Your task to perform on an android device: change the clock display to analog Image 0: 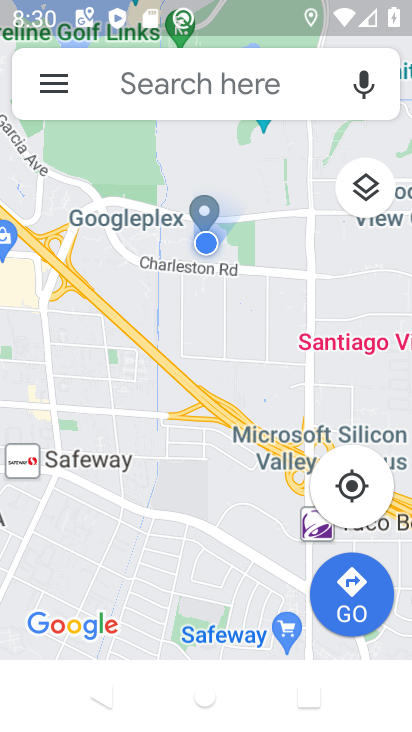
Step 0: press back button
Your task to perform on an android device: change the clock display to analog Image 1: 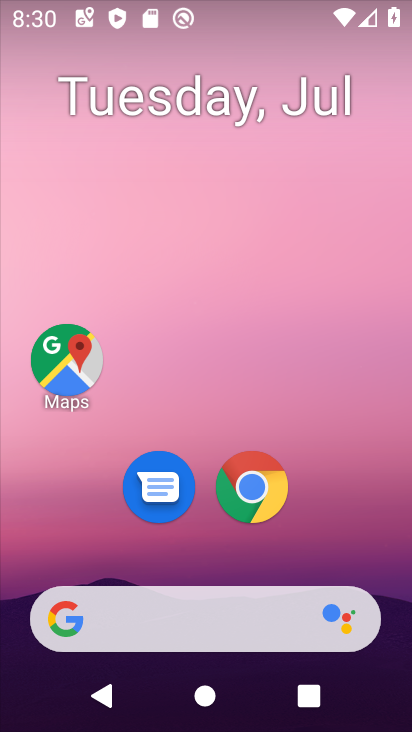
Step 1: drag from (150, 566) to (278, 6)
Your task to perform on an android device: change the clock display to analog Image 2: 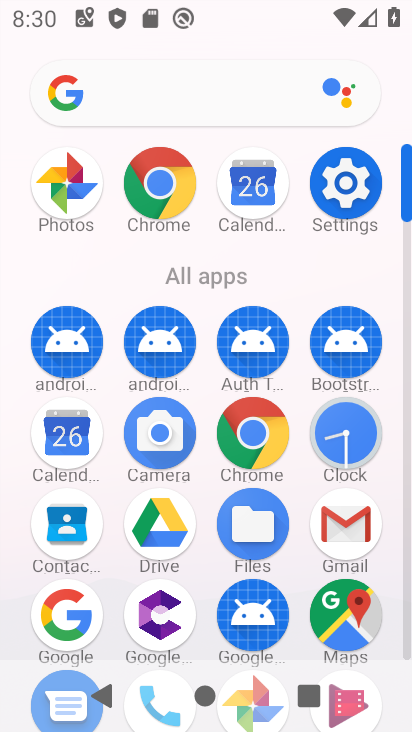
Step 2: click (329, 431)
Your task to perform on an android device: change the clock display to analog Image 3: 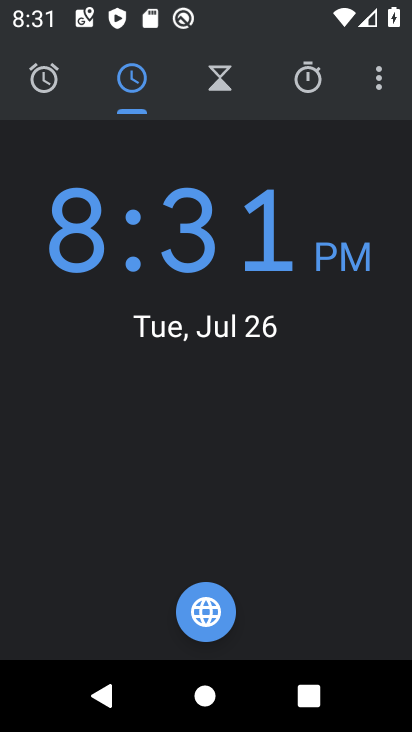
Step 3: click (377, 76)
Your task to perform on an android device: change the clock display to analog Image 4: 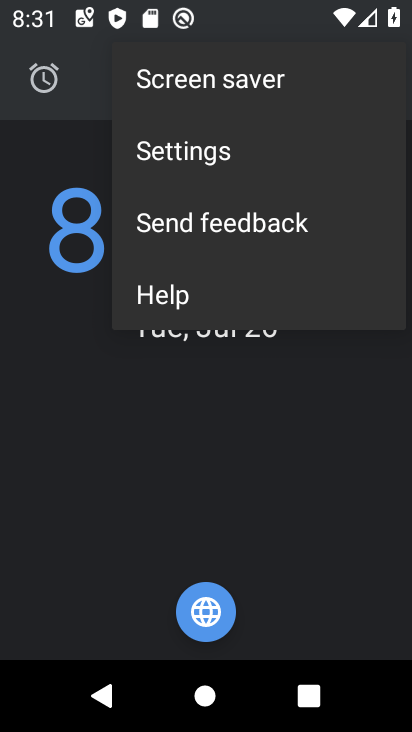
Step 4: click (195, 131)
Your task to perform on an android device: change the clock display to analog Image 5: 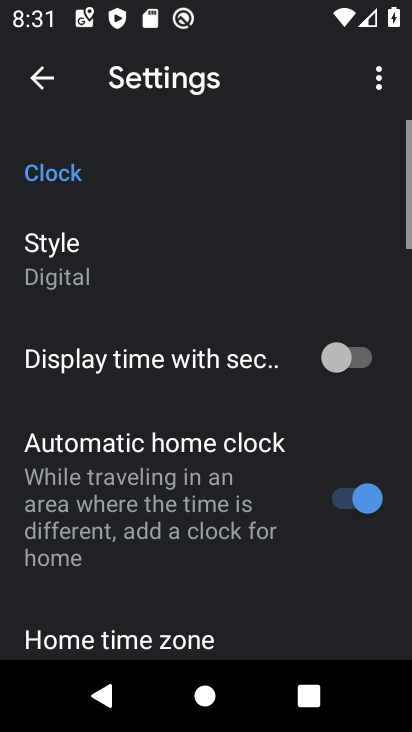
Step 5: click (87, 242)
Your task to perform on an android device: change the clock display to analog Image 6: 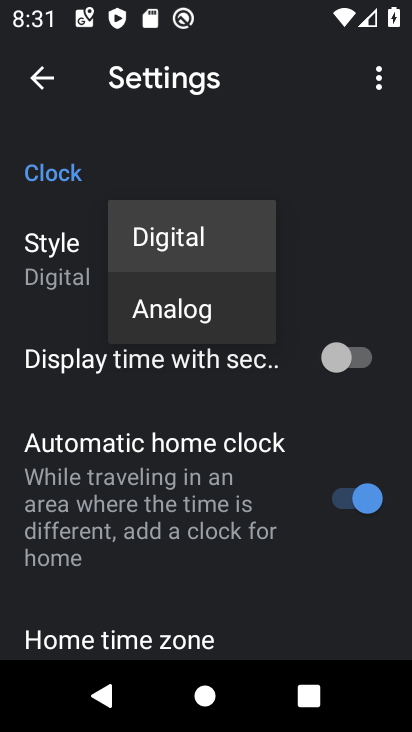
Step 6: click (181, 307)
Your task to perform on an android device: change the clock display to analog Image 7: 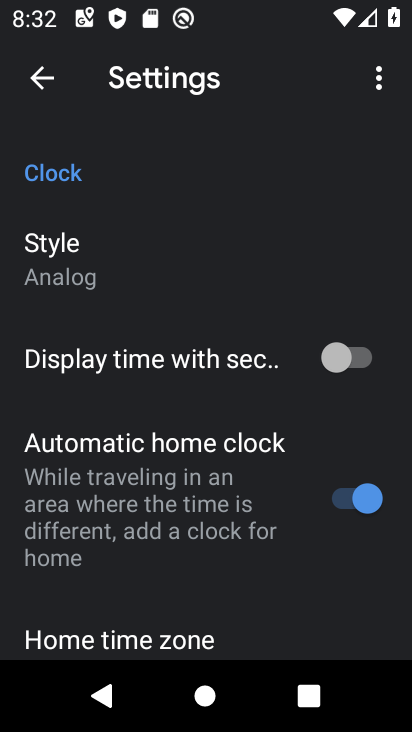
Step 7: task complete